Your task to perform on an android device: set the stopwatch Image 0: 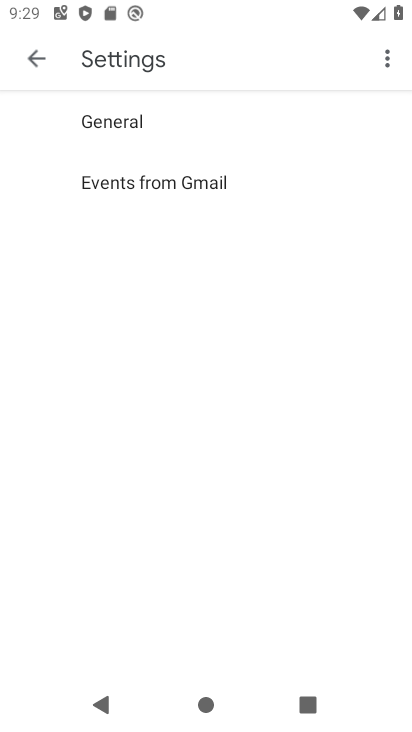
Step 0: press home button
Your task to perform on an android device: set the stopwatch Image 1: 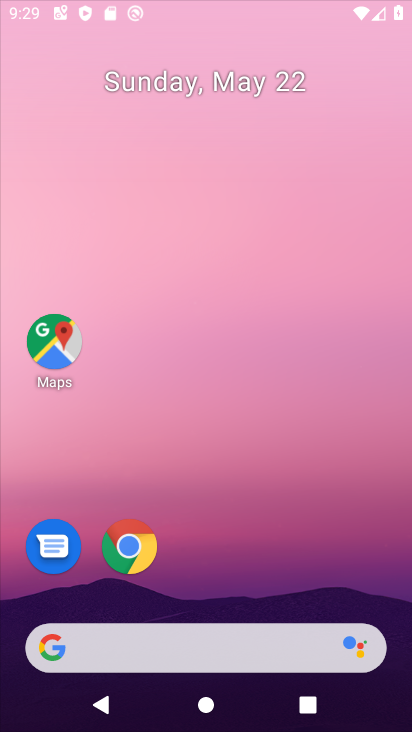
Step 1: drag from (163, 609) to (411, 18)
Your task to perform on an android device: set the stopwatch Image 2: 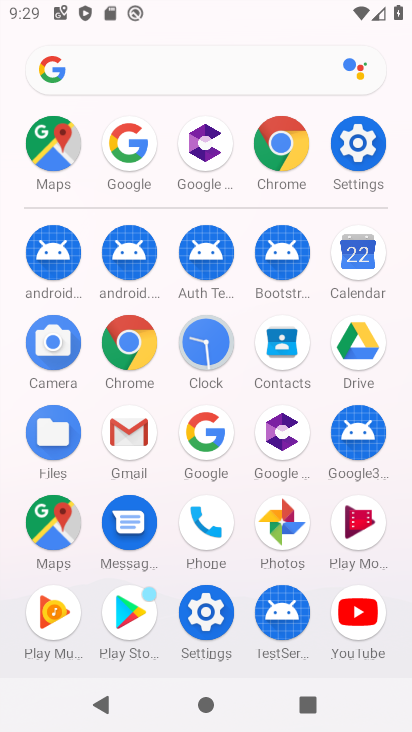
Step 2: click (189, 308)
Your task to perform on an android device: set the stopwatch Image 3: 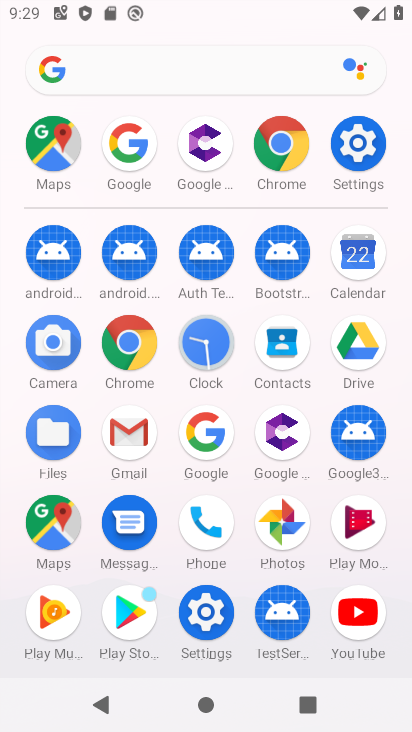
Step 3: click (213, 334)
Your task to perform on an android device: set the stopwatch Image 4: 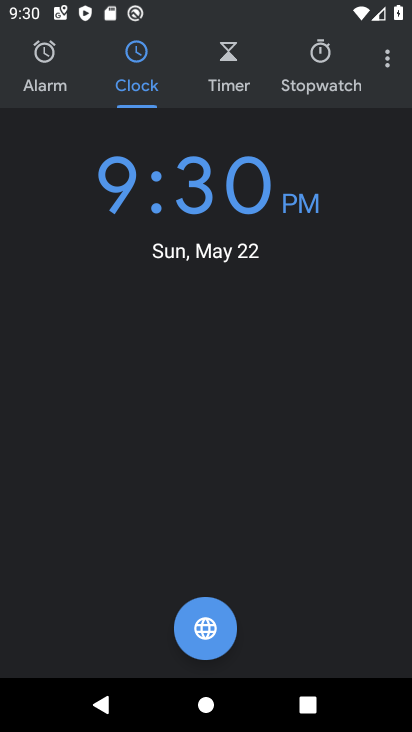
Step 4: click (140, 514)
Your task to perform on an android device: set the stopwatch Image 5: 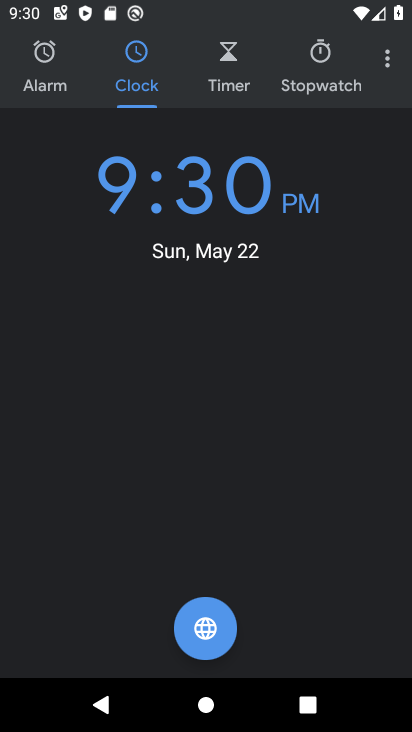
Step 5: click (384, 56)
Your task to perform on an android device: set the stopwatch Image 6: 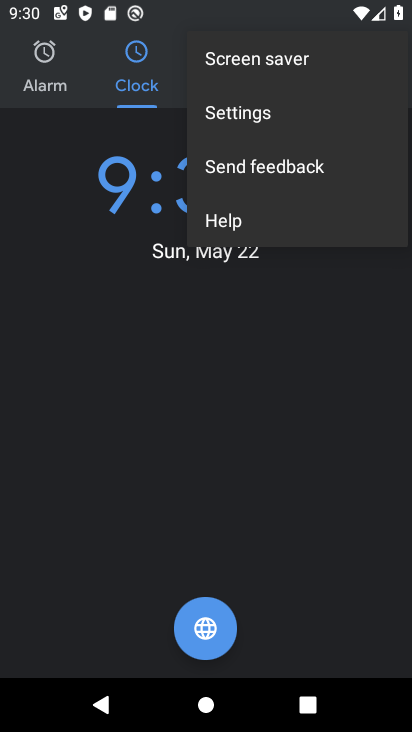
Step 6: click (92, 327)
Your task to perform on an android device: set the stopwatch Image 7: 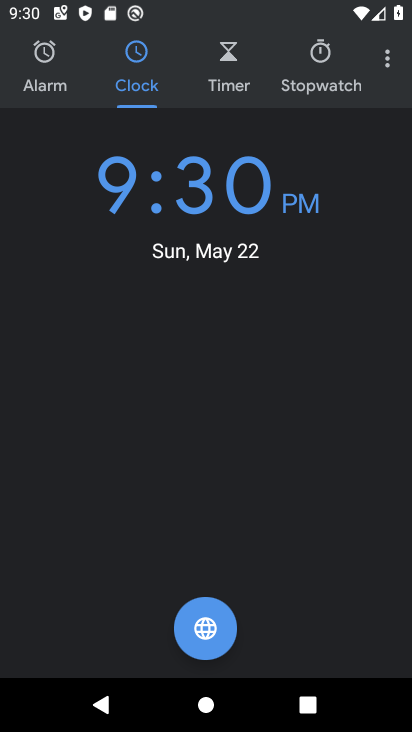
Step 7: click (339, 43)
Your task to perform on an android device: set the stopwatch Image 8: 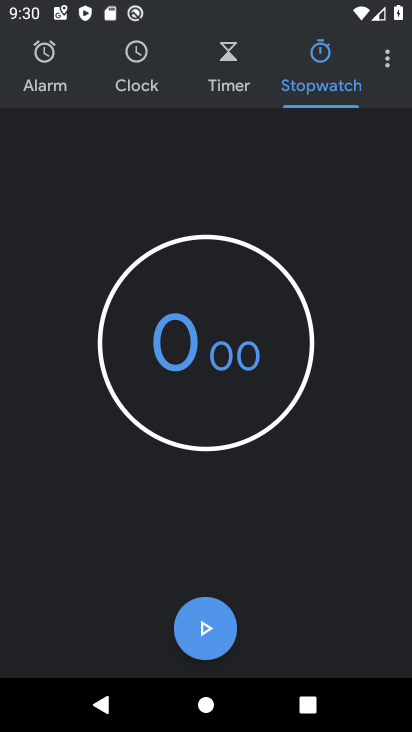
Step 8: click (233, 626)
Your task to perform on an android device: set the stopwatch Image 9: 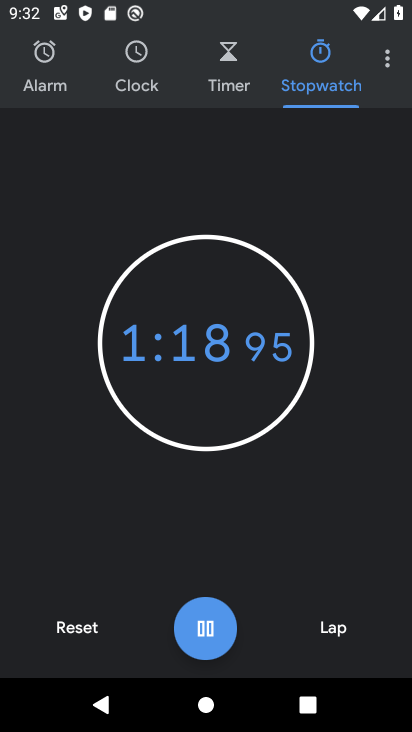
Step 9: task complete